Your task to perform on an android device: turn on sleep mode Image 0: 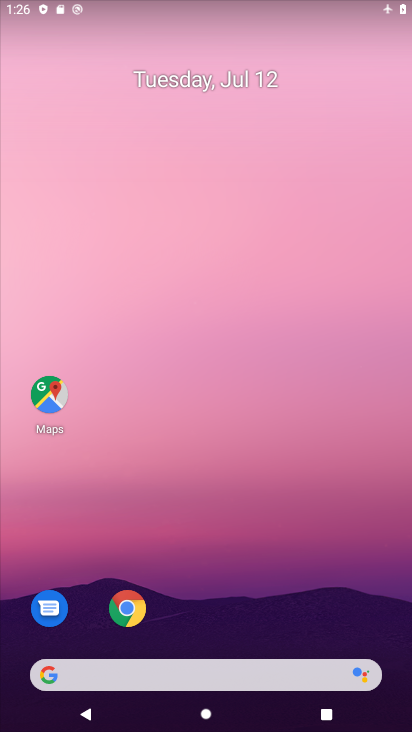
Step 0: drag from (287, 635) to (246, 322)
Your task to perform on an android device: turn on sleep mode Image 1: 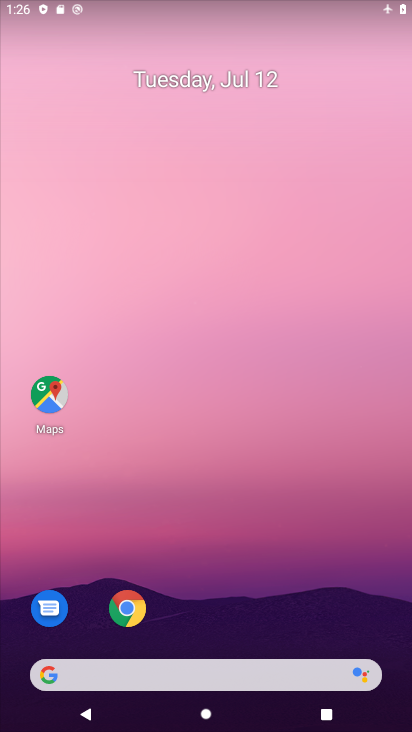
Step 1: drag from (314, 4) to (266, 567)
Your task to perform on an android device: turn on sleep mode Image 2: 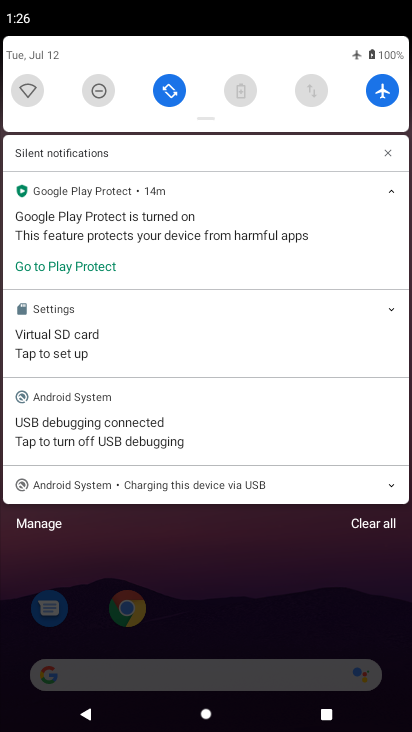
Step 2: drag from (242, 121) to (235, 651)
Your task to perform on an android device: turn on sleep mode Image 3: 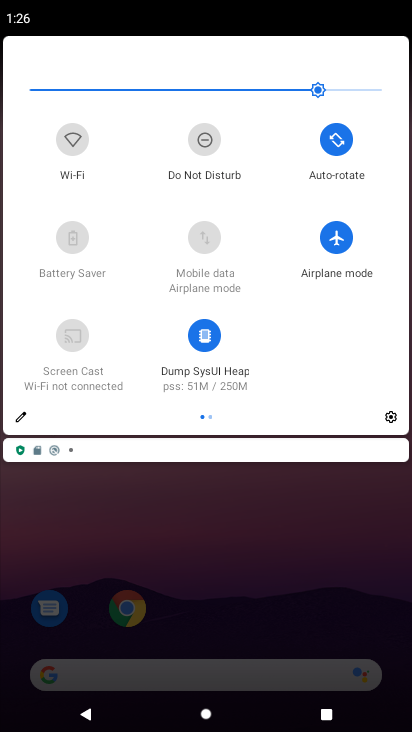
Step 3: click (26, 411)
Your task to perform on an android device: turn on sleep mode Image 4: 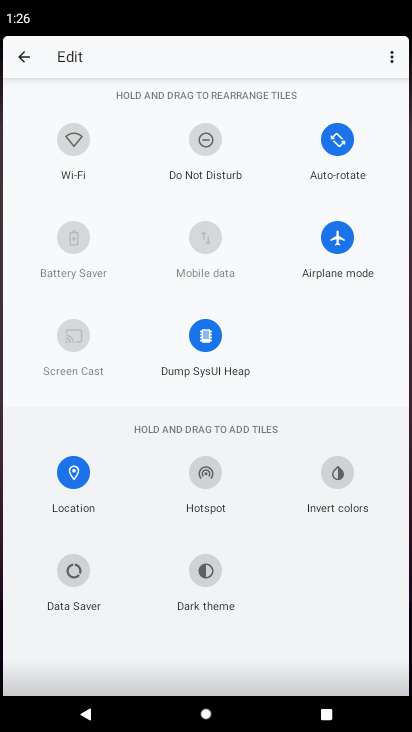
Step 4: task complete